Your task to perform on an android device: delete browsing data in the chrome app Image 0: 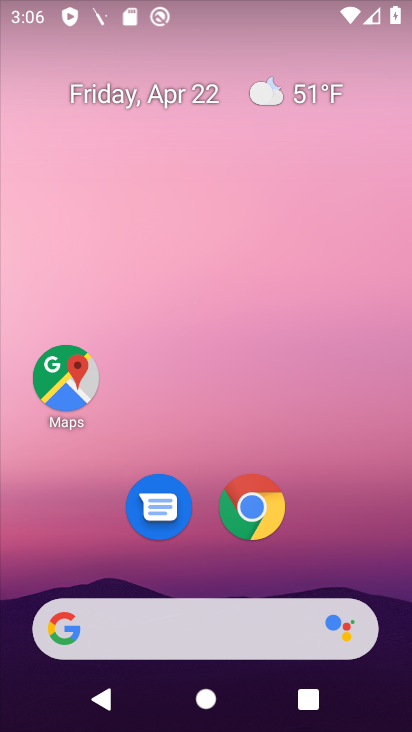
Step 0: drag from (179, 515) to (300, 114)
Your task to perform on an android device: delete browsing data in the chrome app Image 1: 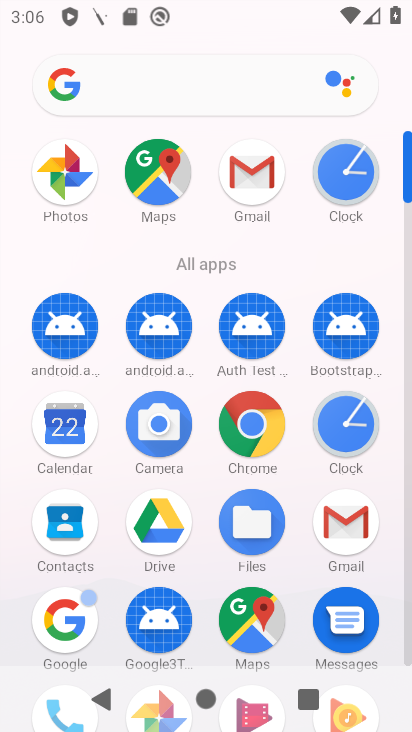
Step 1: click (253, 443)
Your task to perform on an android device: delete browsing data in the chrome app Image 2: 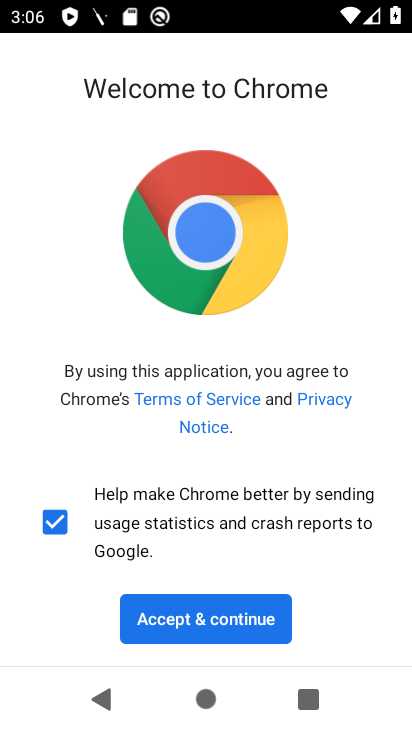
Step 2: click (195, 632)
Your task to perform on an android device: delete browsing data in the chrome app Image 3: 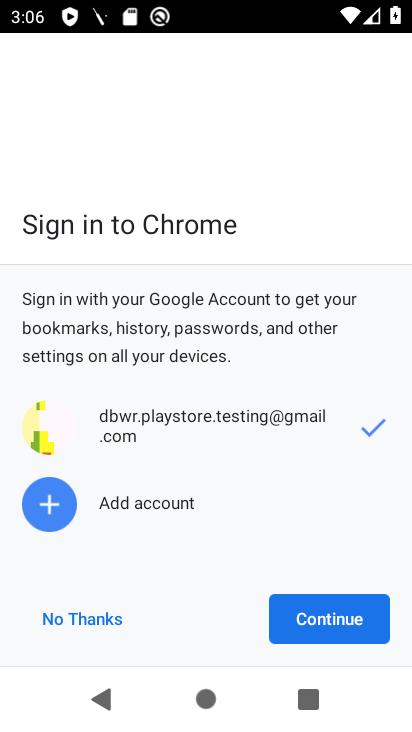
Step 3: click (344, 628)
Your task to perform on an android device: delete browsing data in the chrome app Image 4: 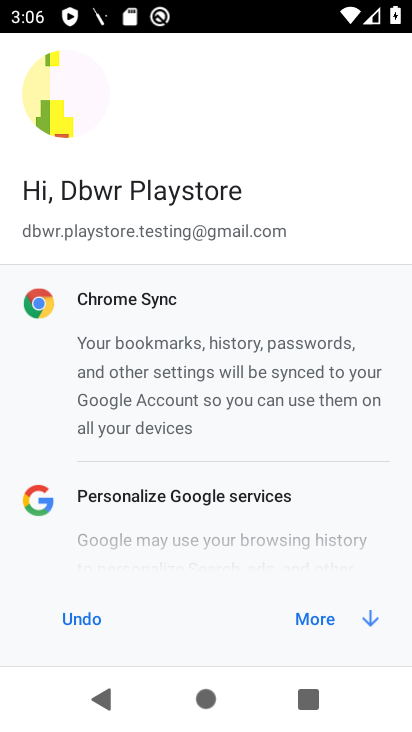
Step 4: click (332, 616)
Your task to perform on an android device: delete browsing data in the chrome app Image 5: 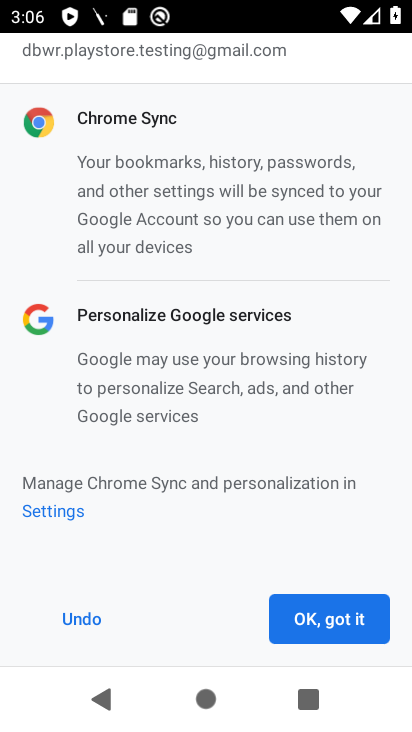
Step 5: click (332, 616)
Your task to perform on an android device: delete browsing data in the chrome app Image 6: 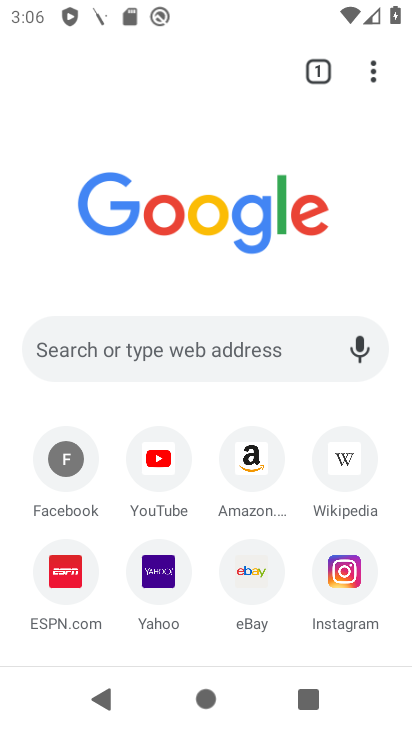
Step 6: drag from (372, 71) to (130, 502)
Your task to perform on an android device: delete browsing data in the chrome app Image 7: 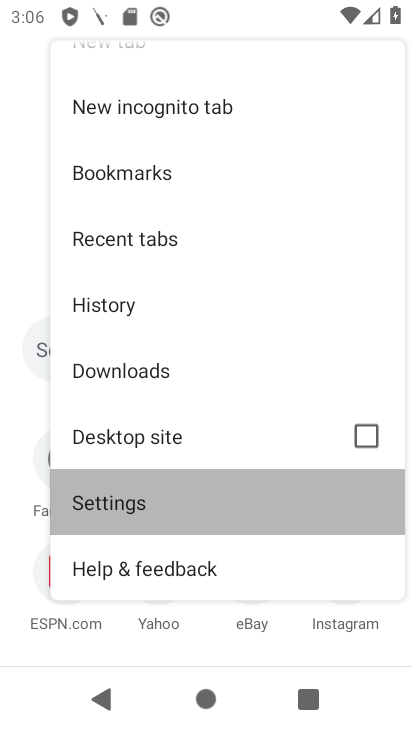
Step 7: click (130, 502)
Your task to perform on an android device: delete browsing data in the chrome app Image 8: 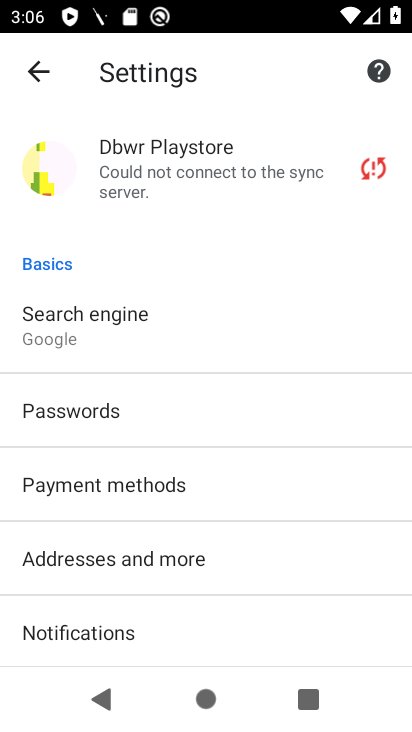
Step 8: drag from (125, 622) to (237, 254)
Your task to perform on an android device: delete browsing data in the chrome app Image 9: 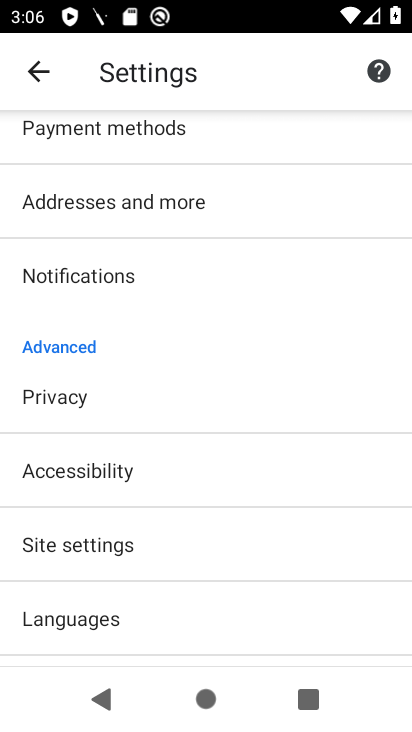
Step 9: click (31, 399)
Your task to perform on an android device: delete browsing data in the chrome app Image 10: 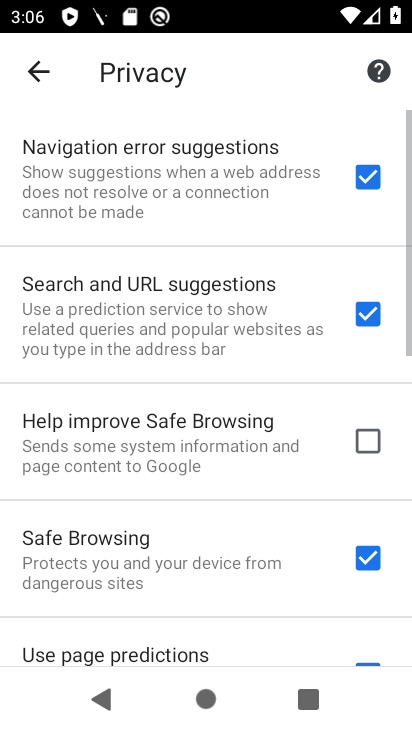
Step 10: drag from (181, 619) to (276, 273)
Your task to perform on an android device: delete browsing data in the chrome app Image 11: 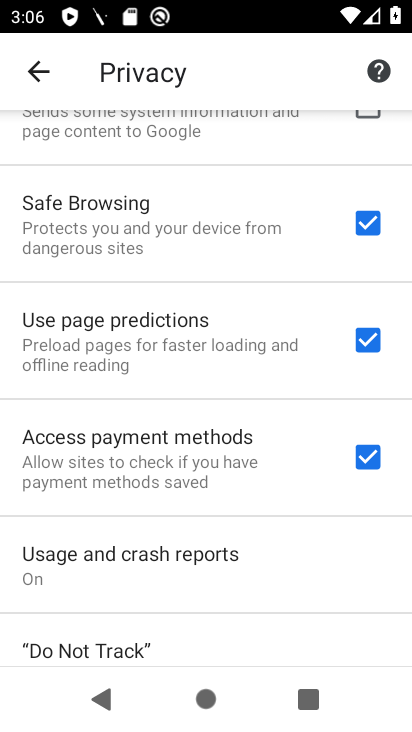
Step 11: drag from (145, 616) to (299, 122)
Your task to perform on an android device: delete browsing data in the chrome app Image 12: 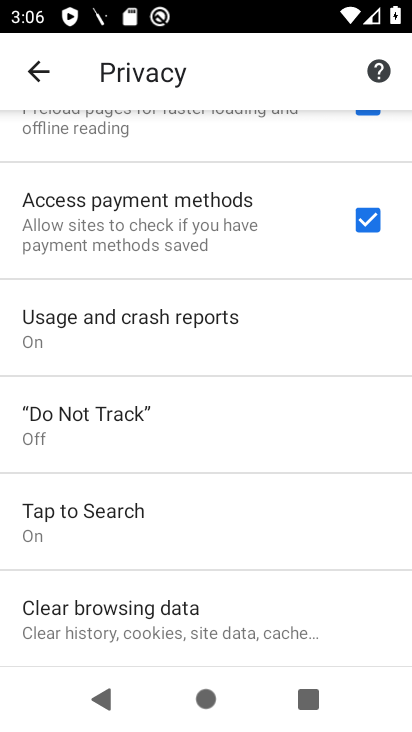
Step 12: click (168, 620)
Your task to perform on an android device: delete browsing data in the chrome app Image 13: 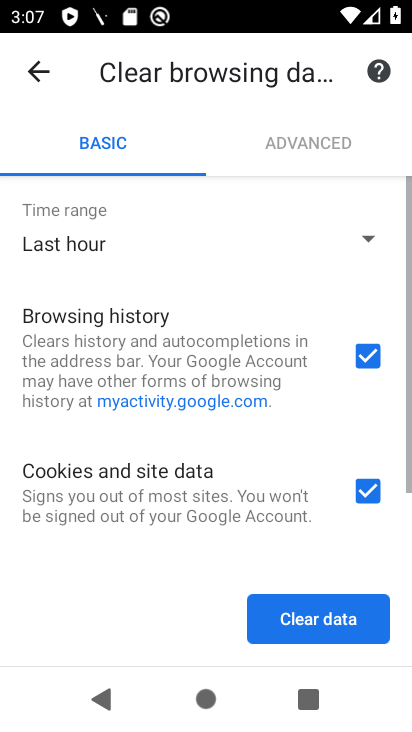
Step 13: drag from (268, 492) to (335, 187)
Your task to perform on an android device: delete browsing data in the chrome app Image 14: 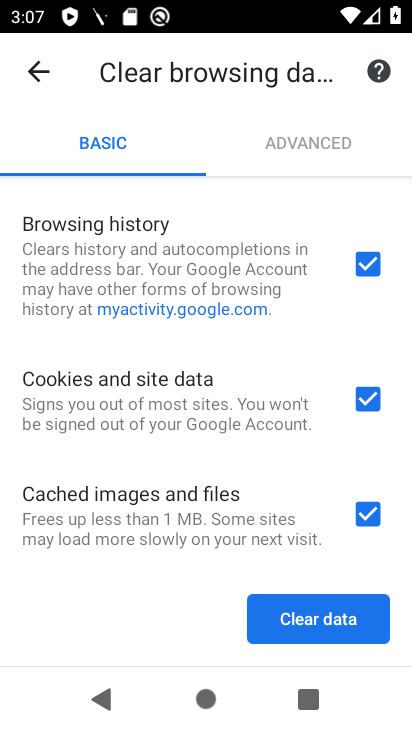
Step 14: click (315, 626)
Your task to perform on an android device: delete browsing data in the chrome app Image 15: 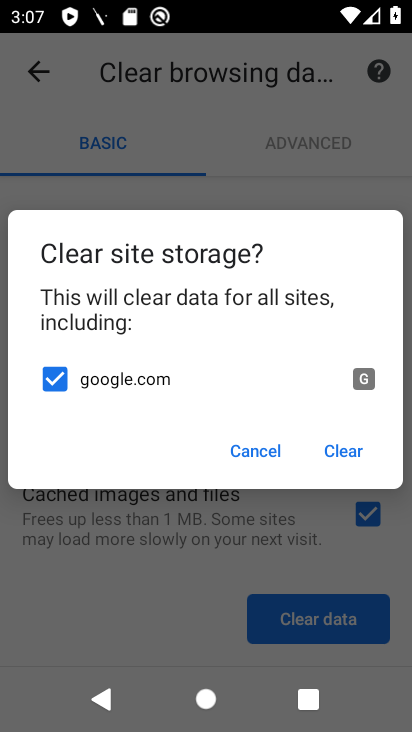
Step 15: click (350, 448)
Your task to perform on an android device: delete browsing data in the chrome app Image 16: 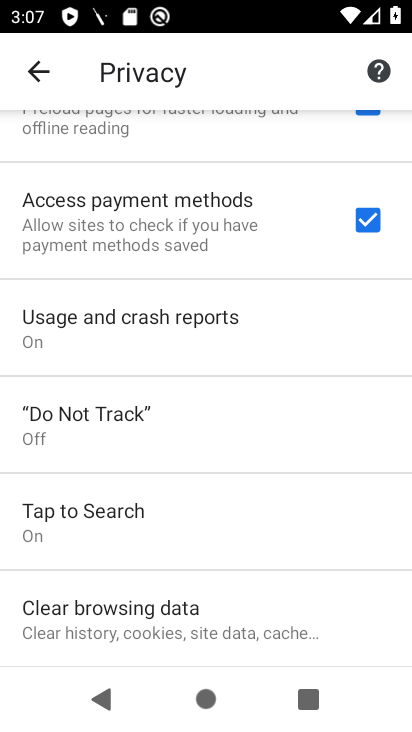
Step 16: task complete